Your task to perform on an android device: turn on the 24-hour format for clock Image 0: 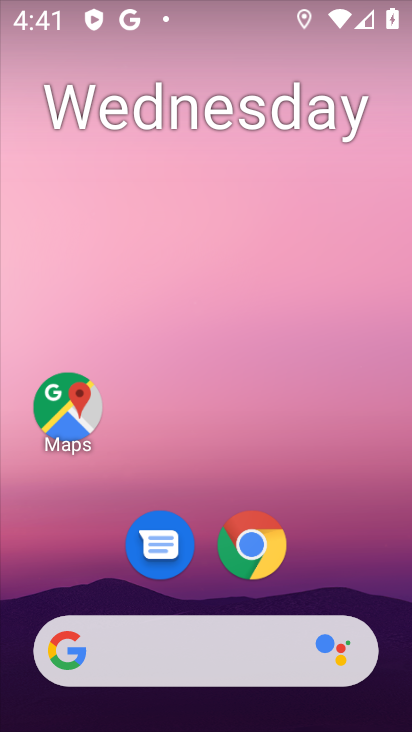
Step 0: drag from (197, 609) to (206, 9)
Your task to perform on an android device: turn on the 24-hour format for clock Image 1: 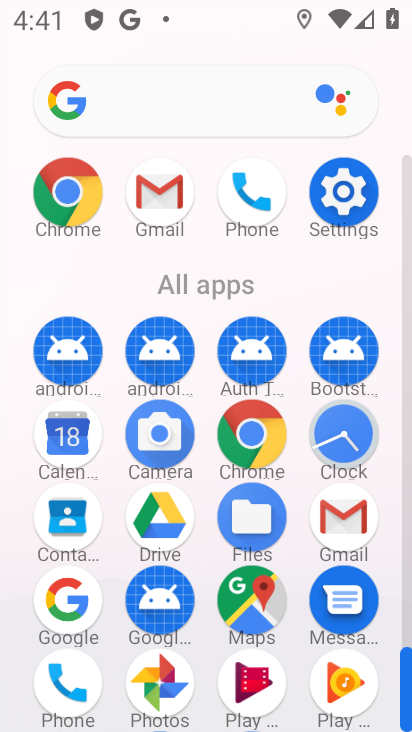
Step 1: click (347, 439)
Your task to perform on an android device: turn on the 24-hour format for clock Image 2: 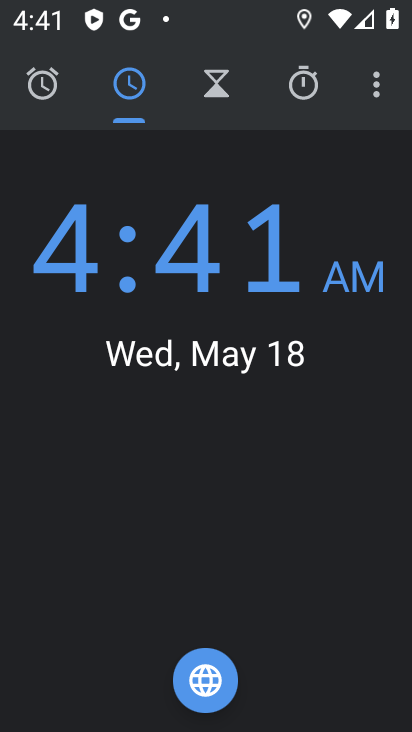
Step 2: click (376, 95)
Your task to perform on an android device: turn on the 24-hour format for clock Image 3: 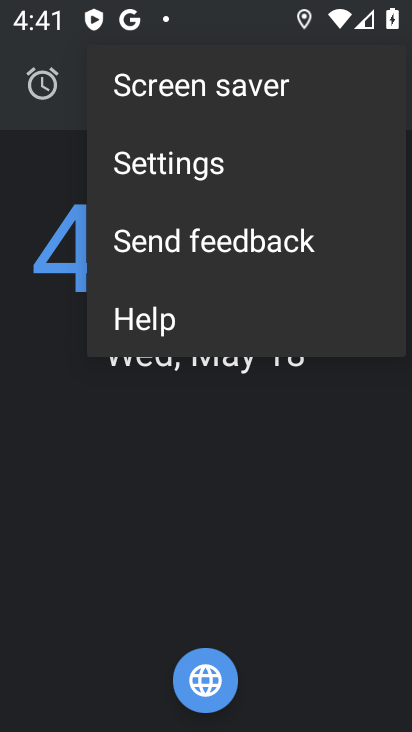
Step 3: click (221, 159)
Your task to perform on an android device: turn on the 24-hour format for clock Image 4: 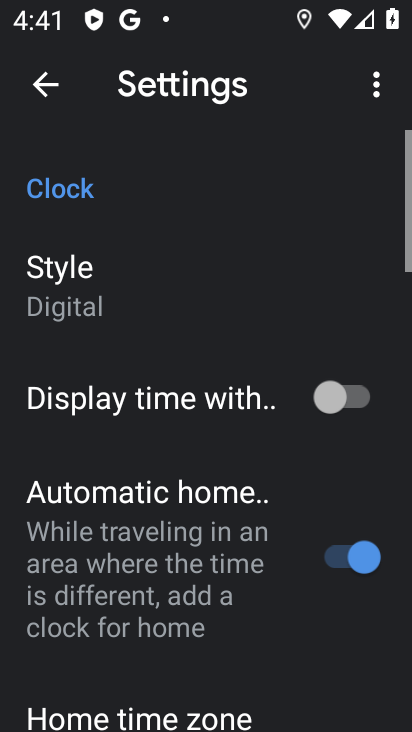
Step 4: drag from (260, 577) to (234, 135)
Your task to perform on an android device: turn on the 24-hour format for clock Image 5: 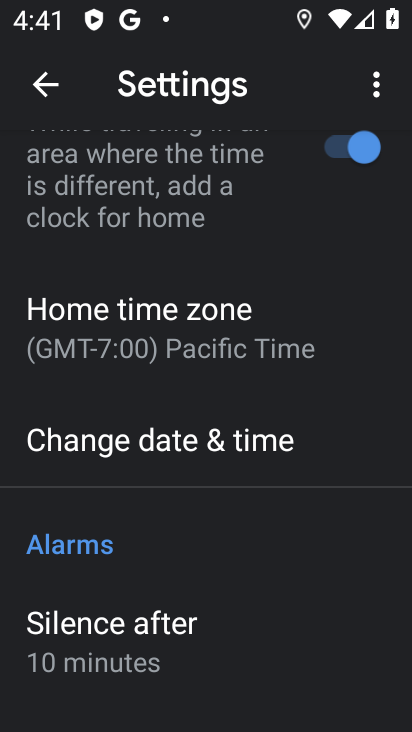
Step 5: click (199, 442)
Your task to perform on an android device: turn on the 24-hour format for clock Image 6: 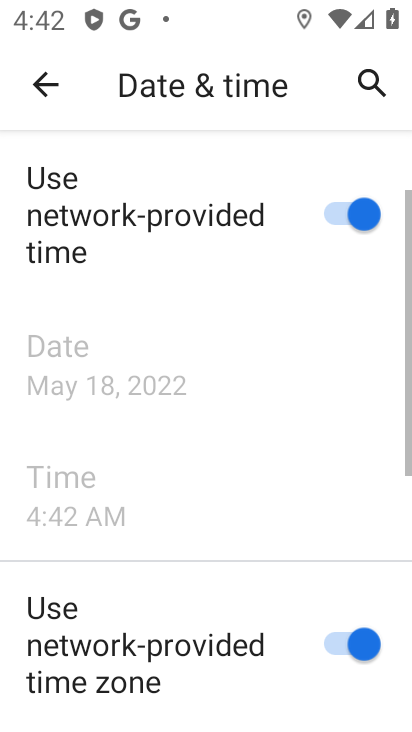
Step 6: drag from (229, 552) to (233, 63)
Your task to perform on an android device: turn on the 24-hour format for clock Image 7: 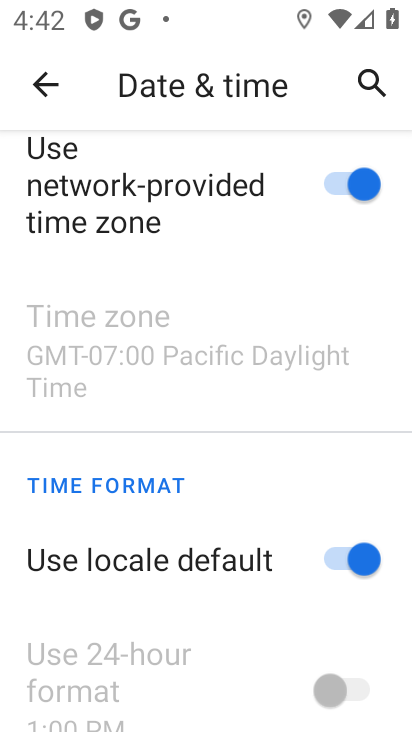
Step 7: drag from (192, 635) to (183, 465)
Your task to perform on an android device: turn on the 24-hour format for clock Image 8: 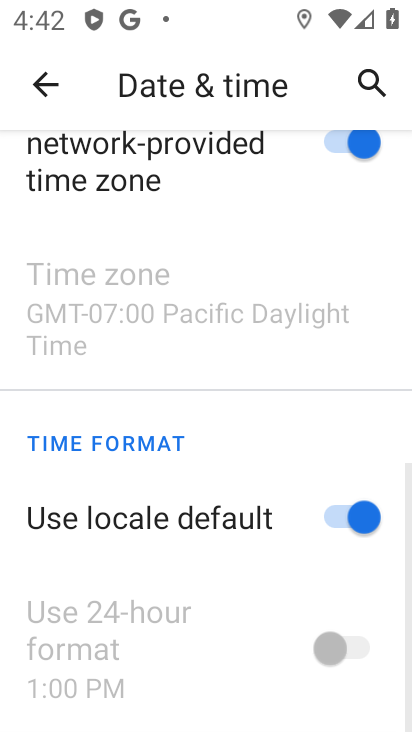
Step 8: click (345, 514)
Your task to perform on an android device: turn on the 24-hour format for clock Image 9: 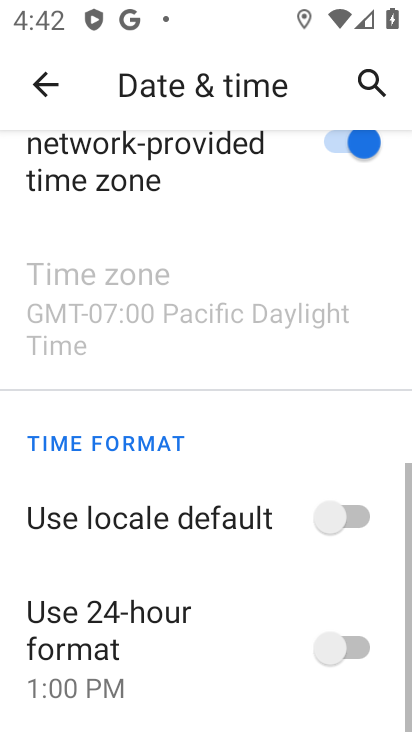
Step 9: click (341, 649)
Your task to perform on an android device: turn on the 24-hour format for clock Image 10: 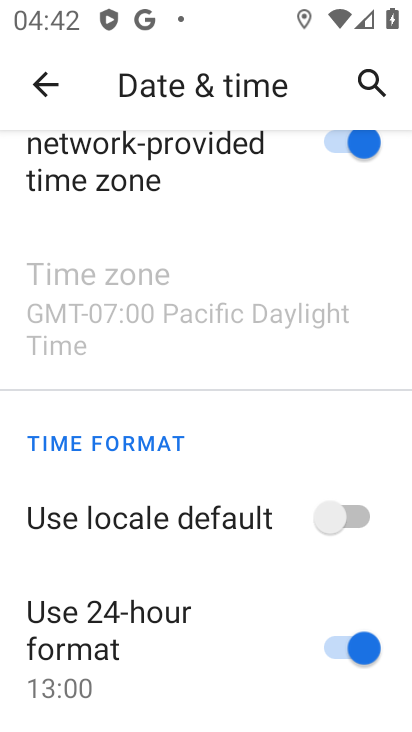
Step 10: task complete